Your task to perform on an android device: open app "Adobe Acrobat Reader: Edit PDF" (install if not already installed) Image 0: 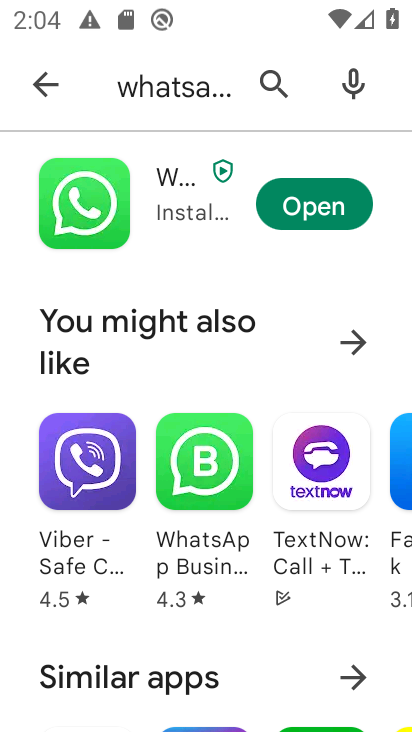
Step 0: press home button
Your task to perform on an android device: open app "Adobe Acrobat Reader: Edit PDF" (install if not already installed) Image 1: 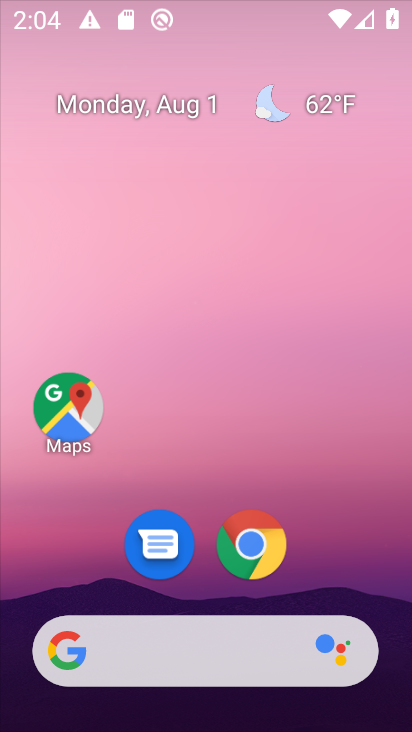
Step 1: drag from (366, 510) to (235, 62)
Your task to perform on an android device: open app "Adobe Acrobat Reader: Edit PDF" (install if not already installed) Image 2: 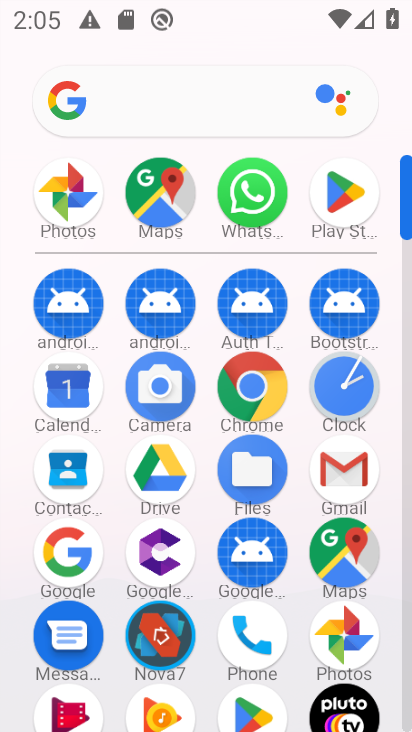
Step 2: click (331, 196)
Your task to perform on an android device: open app "Adobe Acrobat Reader: Edit PDF" (install if not already installed) Image 3: 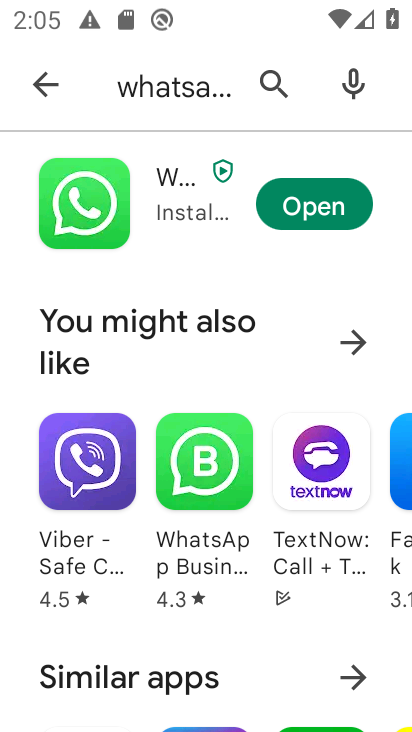
Step 3: press back button
Your task to perform on an android device: open app "Adobe Acrobat Reader: Edit PDF" (install if not already installed) Image 4: 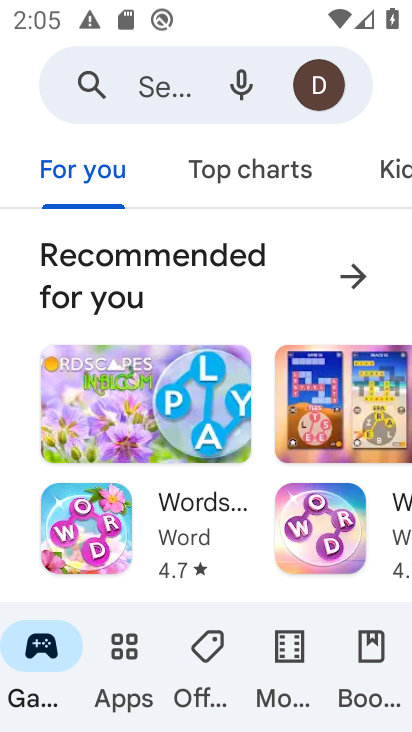
Step 4: click (150, 76)
Your task to perform on an android device: open app "Adobe Acrobat Reader: Edit PDF" (install if not already installed) Image 5: 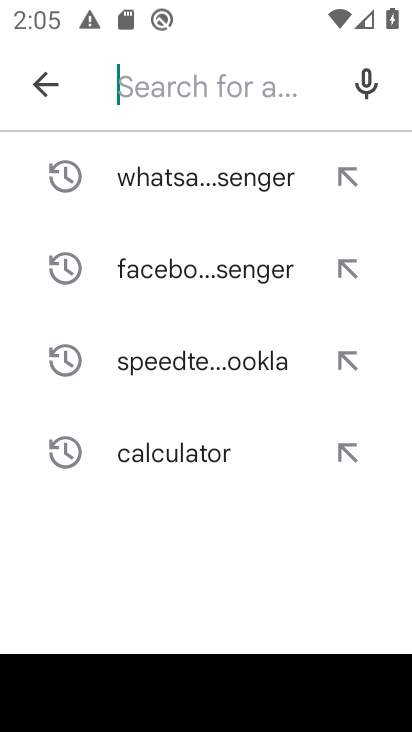
Step 5: type "Adobe Acrobat Reader: Edit PDF"
Your task to perform on an android device: open app "Adobe Acrobat Reader: Edit PDF" (install if not already installed) Image 6: 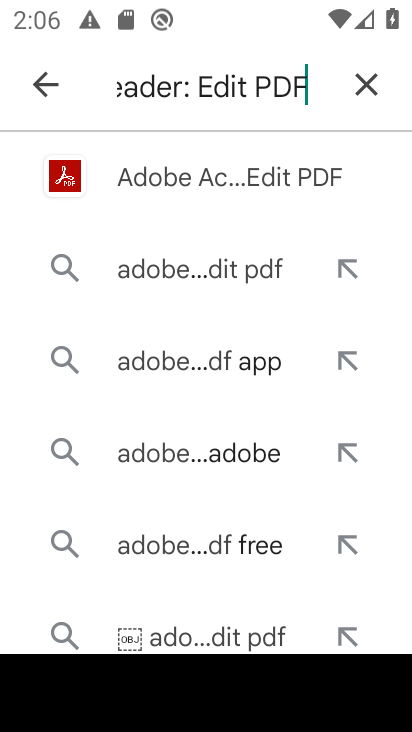
Step 6: click (161, 177)
Your task to perform on an android device: open app "Adobe Acrobat Reader: Edit PDF" (install if not already installed) Image 7: 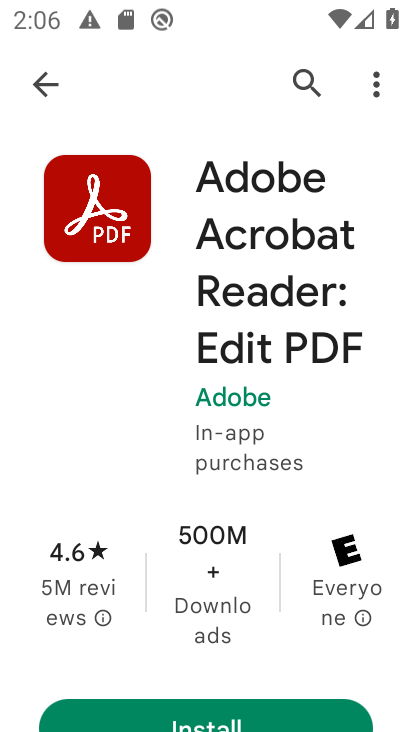
Step 7: task complete